Your task to perform on an android device: Open ESPN.com Image 0: 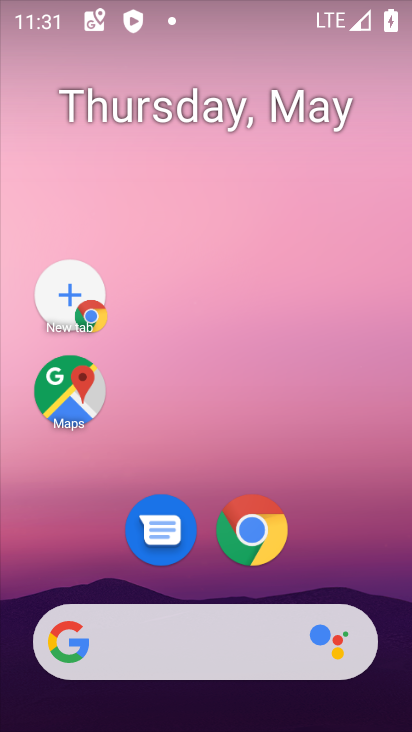
Step 0: drag from (291, 510) to (274, 238)
Your task to perform on an android device: Open ESPN.com Image 1: 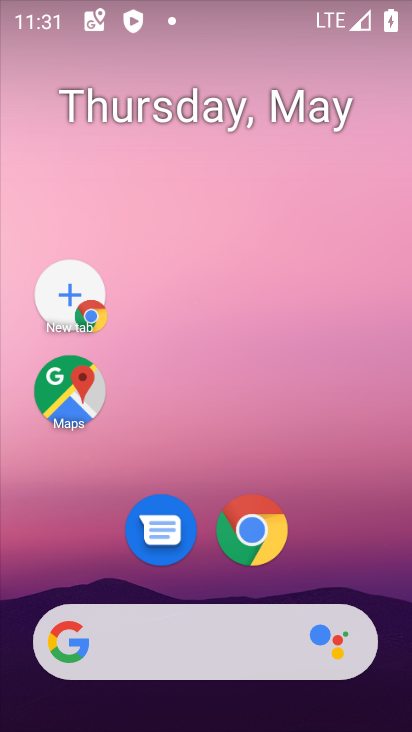
Step 1: drag from (273, 674) to (280, 275)
Your task to perform on an android device: Open ESPN.com Image 2: 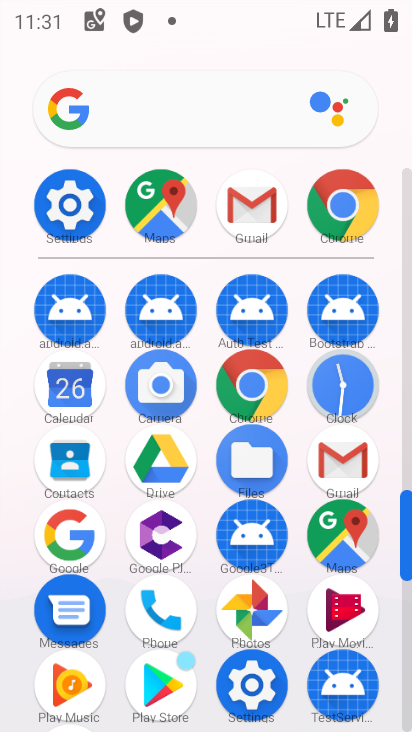
Step 2: click (355, 191)
Your task to perform on an android device: Open ESPN.com Image 3: 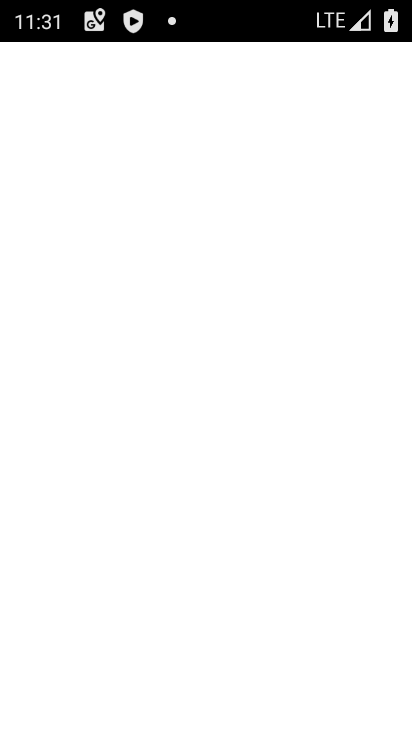
Step 3: click (353, 201)
Your task to perform on an android device: Open ESPN.com Image 4: 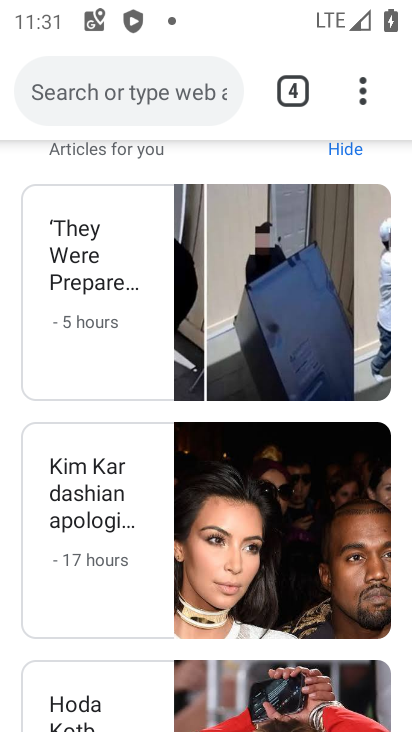
Step 4: drag from (365, 93) to (92, 176)
Your task to perform on an android device: Open ESPN.com Image 5: 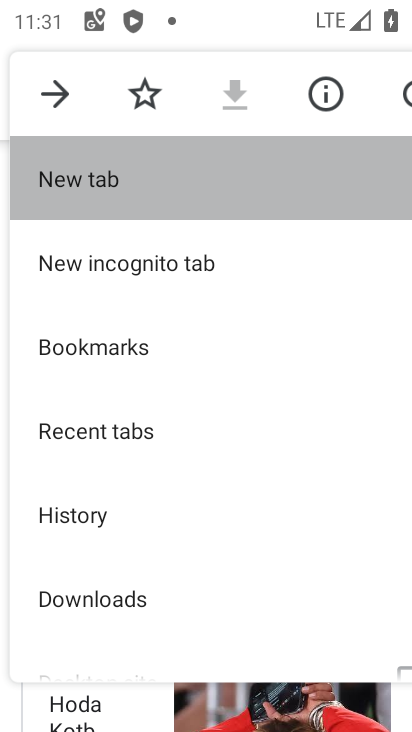
Step 5: click (92, 176)
Your task to perform on an android device: Open ESPN.com Image 6: 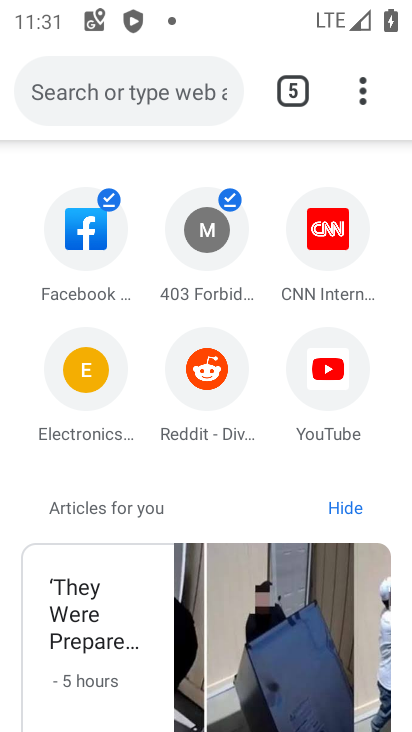
Step 6: click (73, 107)
Your task to perform on an android device: Open ESPN.com Image 7: 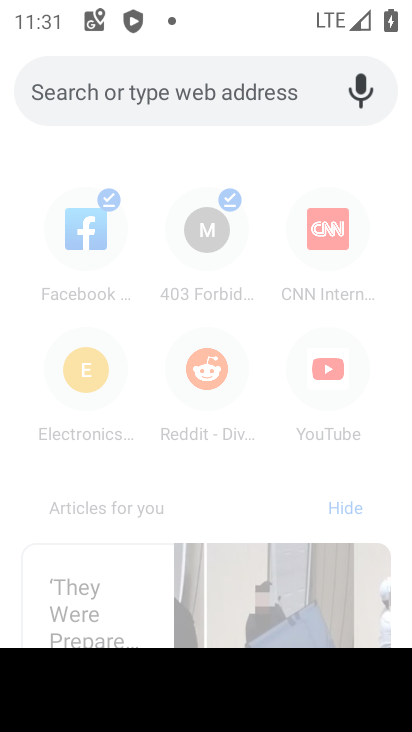
Step 7: type "espn.com"
Your task to perform on an android device: Open ESPN.com Image 8: 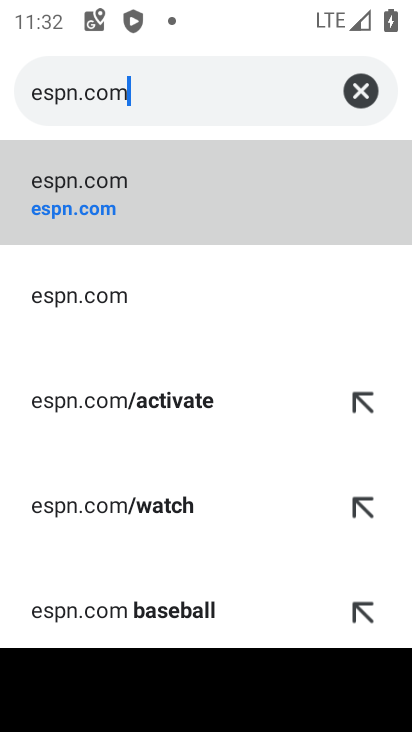
Step 8: click (73, 206)
Your task to perform on an android device: Open ESPN.com Image 9: 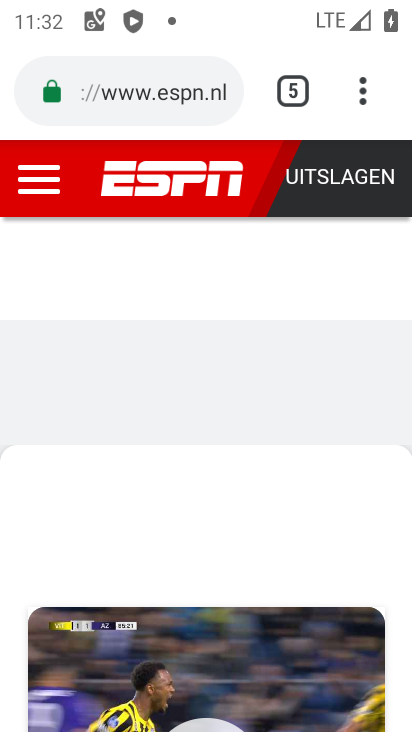
Step 9: task complete